Your task to perform on an android device: Turn on the flashlight Image 0: 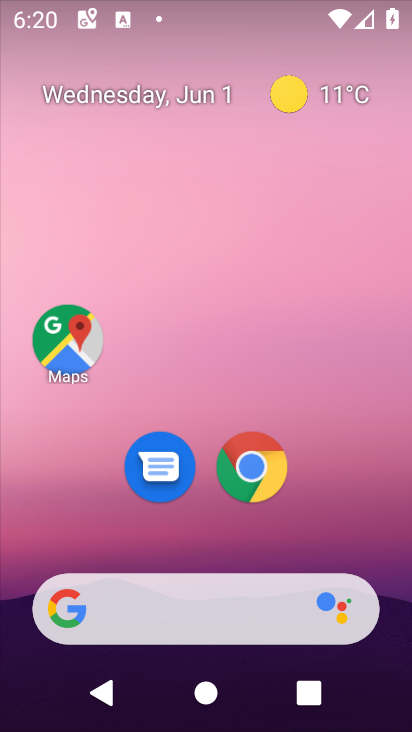
Step 0: click (71, 344)
Your task to perform on an android device: Turn on the flashlight Image 1: 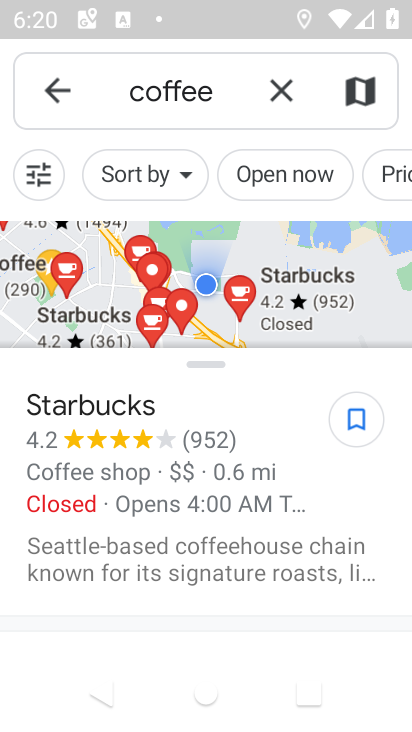
Step 1: click (276, 90)
Your task to perform on an android device: Turn on the flashlight Image 2: 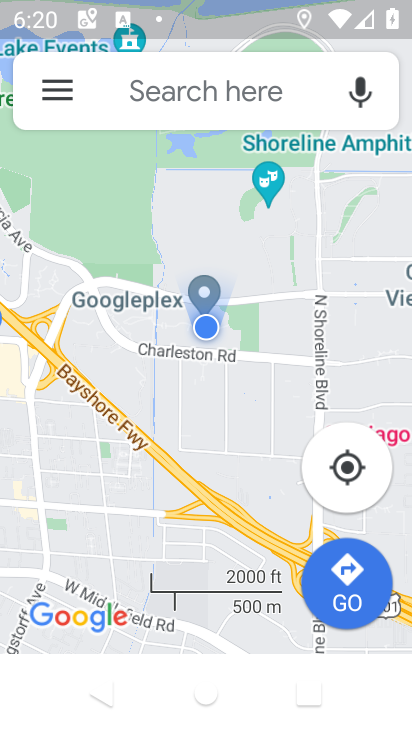
Step 2: task complete